Your task to perform on an android device: Search for Mexican restaurants on Maps Image 0: 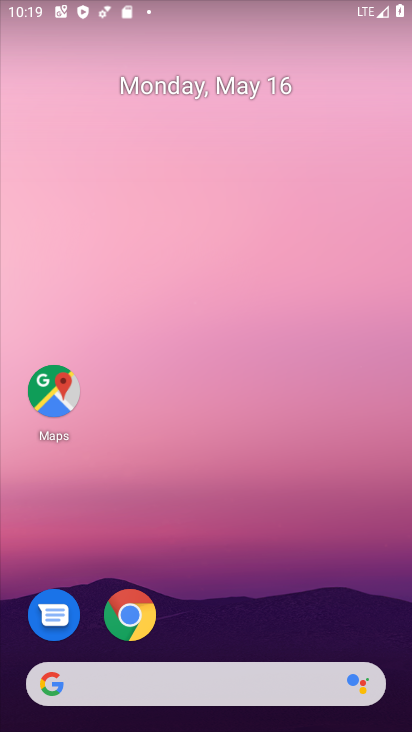
Step 0: drag from (258, 645) to (299, 219)
Your task to perform on an android device: Search for Mexican restaurants on Maps Image 1: 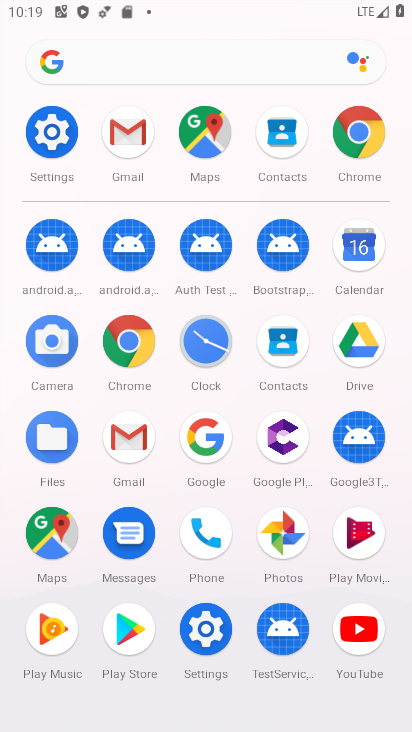
Step 1: click (210, 148)
Your task to perform on an android device: Search for Mexican restaurants on Maps Image 2: 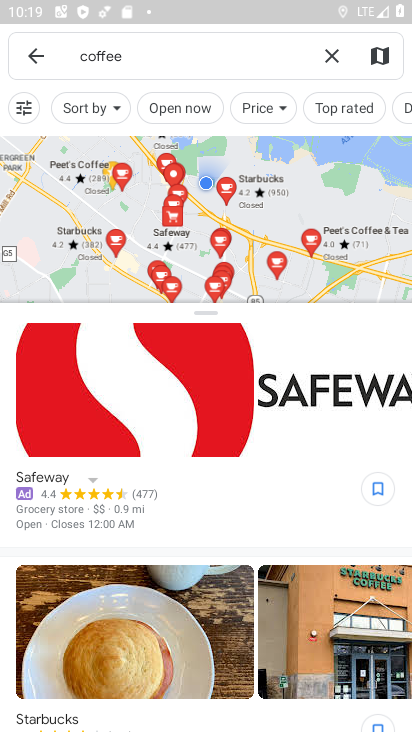
Step 2: click (319, 56)
Your task to perform on an android device: Search for Mexican restaurants on Maps Image 3: 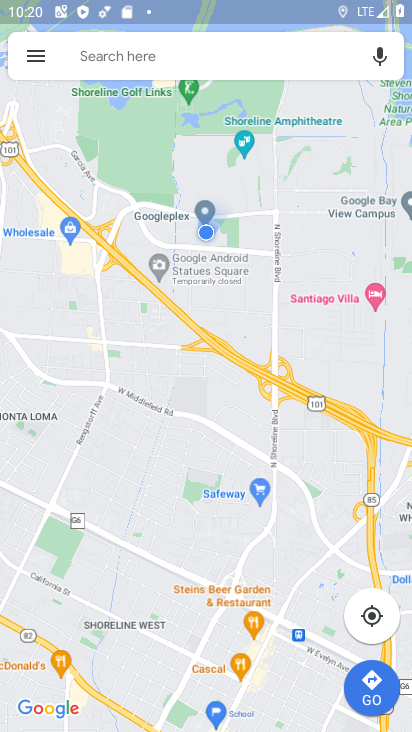
Step 3: click (239, 70)
Your task to perform on an android device: Search for Mexican restaurants on Maps Image 4: 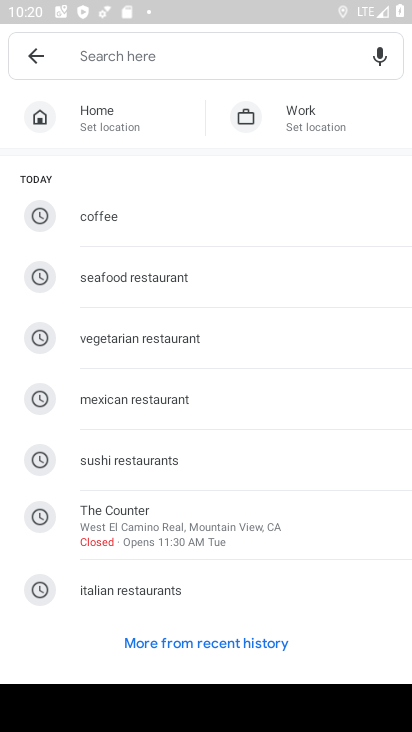
Step 4: click (159, 413)
Your task to perform on an android device: Search for Mexican restaurants on Maps Image 5: 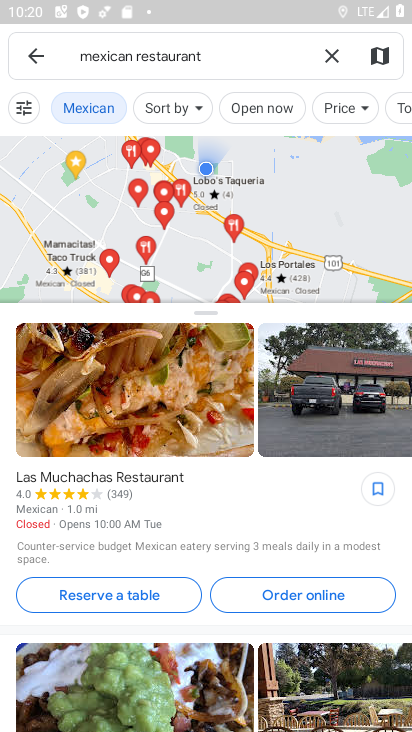
Step 5: task complete